Your task to perform on an android device: empty trash in google photos Image 0: 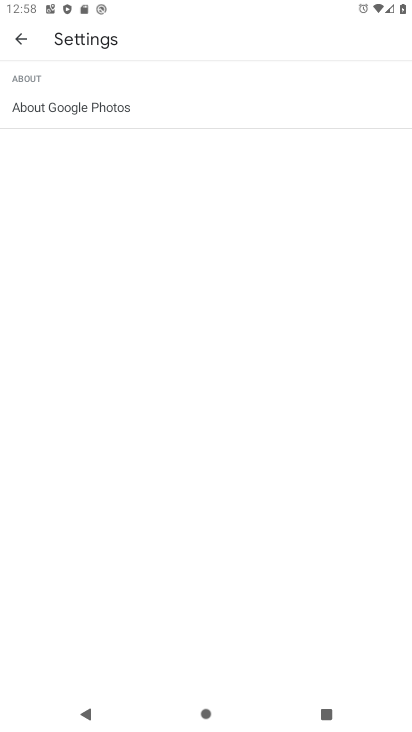
Step 0: press back button
Your task to perform on an android device: empty trash in google photos Image 1: 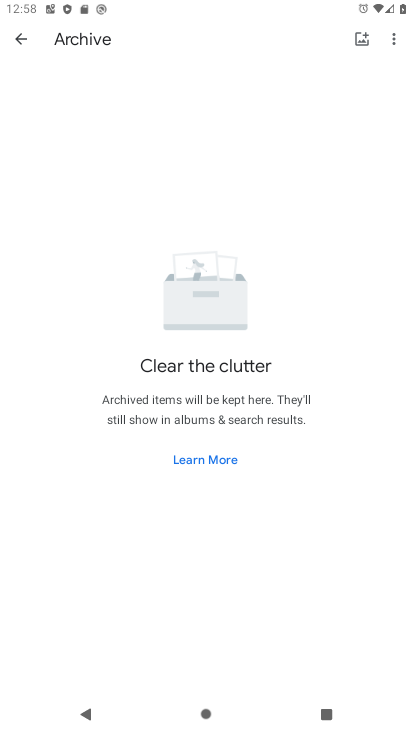
Step 1: press back button
Your task to perform on an android device: empty trash in google photos Image 2: 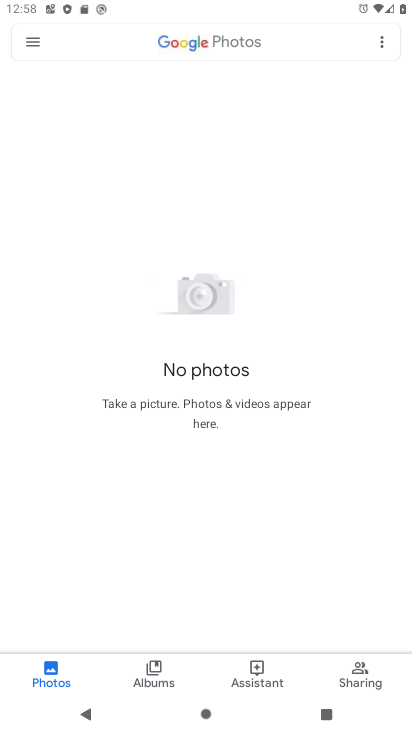
Step 2: press back button
Your task to perform on an android device: empty trash in google photos Image 3: 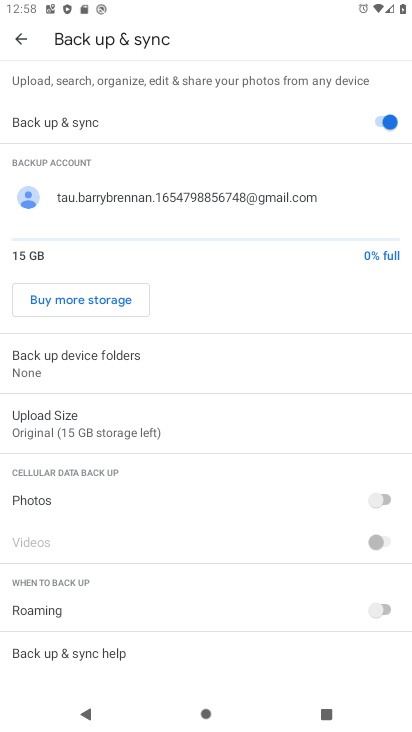
Step 3: press back button
Your task to perform on an android device: empty trash in google photos Image 4: 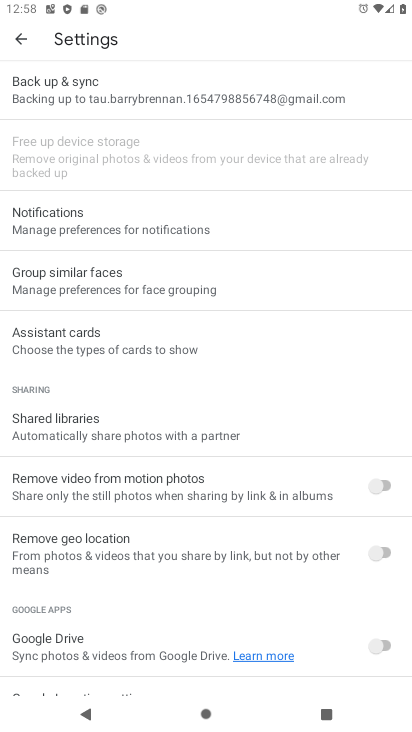
Step 4: press back button
Your task to perform on an android device: empty trash in google photos Image 5: 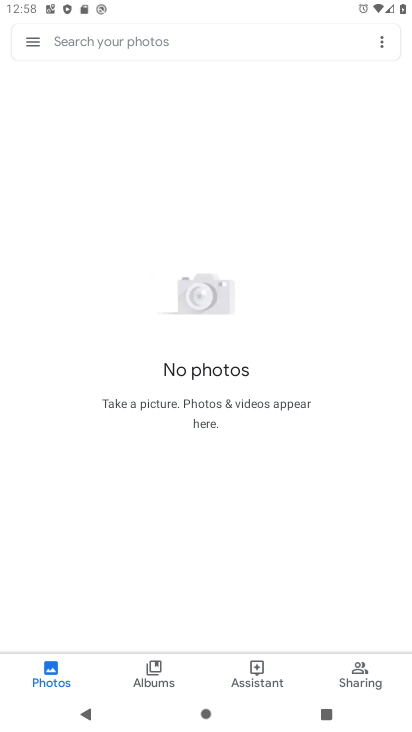
Step 5: press back button
Your task to perform on an android device: empty trash in google photos Image 6: 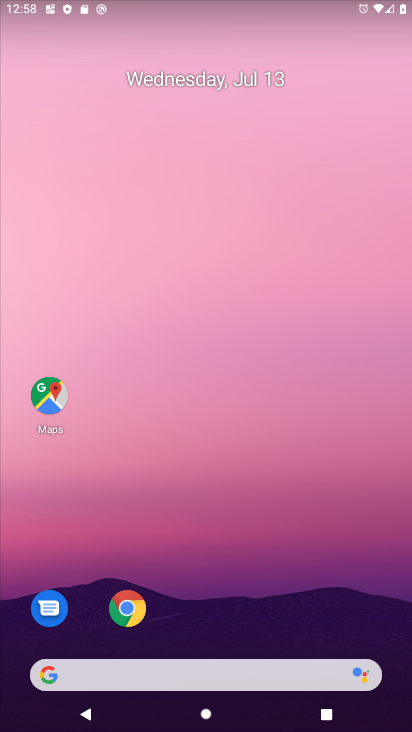
Step 6: drag from (226, 605) to (310, 62)
Your task to perform on an android device: empty trash in google photos Image 7: 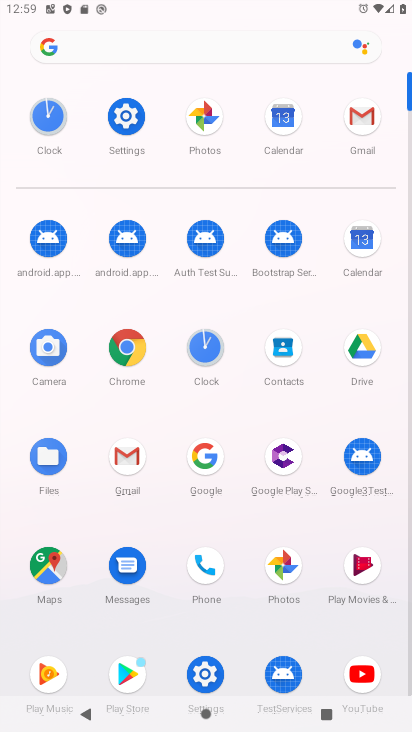
Step 7: click (278, 560)
Your task to perform on an android device: empty trash in google photos Image 8: 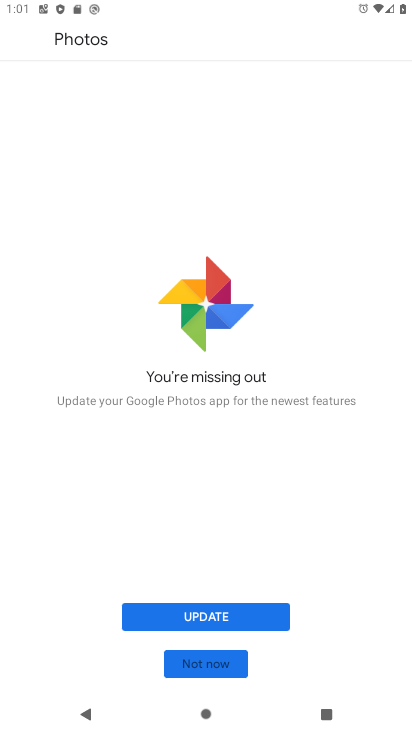
Step 8: press back button
Your task to perform on an android device: empty trash in google photos Image 9: 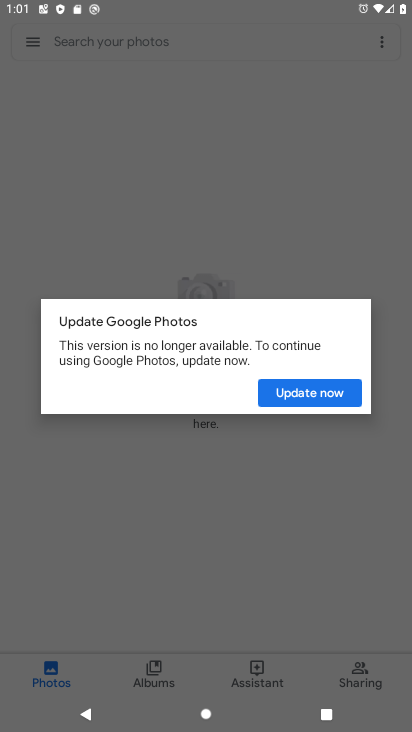
Step 9: click (324, 392)
Your task to perform on an android device: empty trash in google photos Image 10: 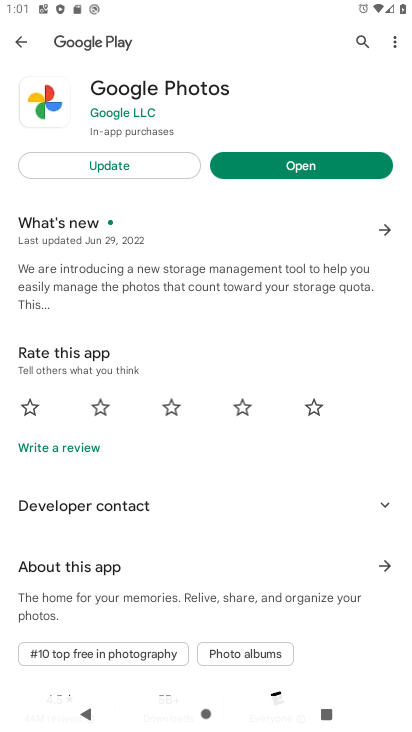
Step 10: click (321, 170)
Your task to perform on an android device: empty trash in google photos Image 11: 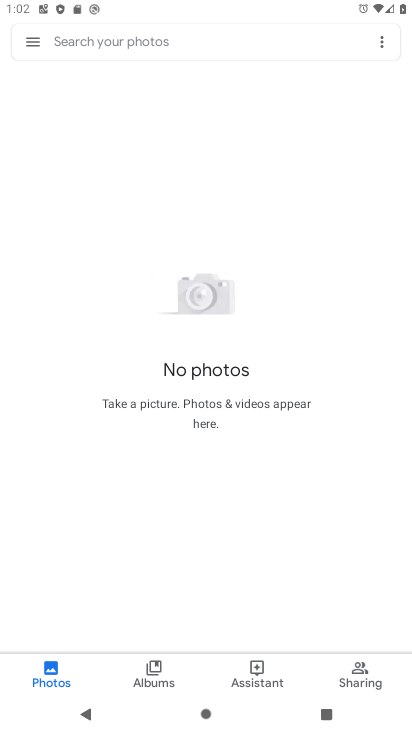
Step 11: click (30, 27)
Your task to perform on an android device: empty trash in google photos Image 12: 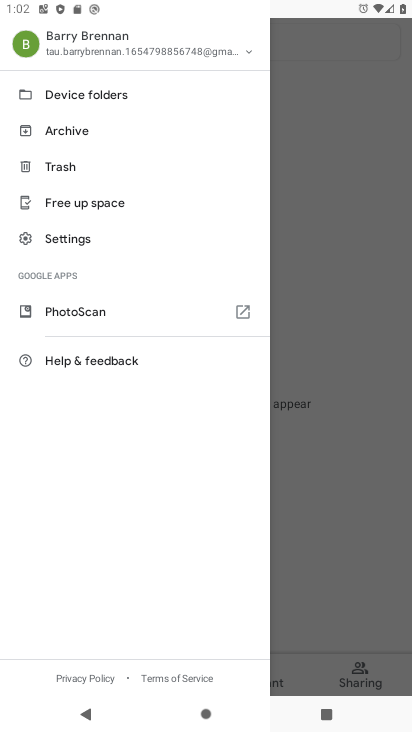
Step 12: click (81, 165)
Your task to perform on an android device: empty trash in google photos Image 13: 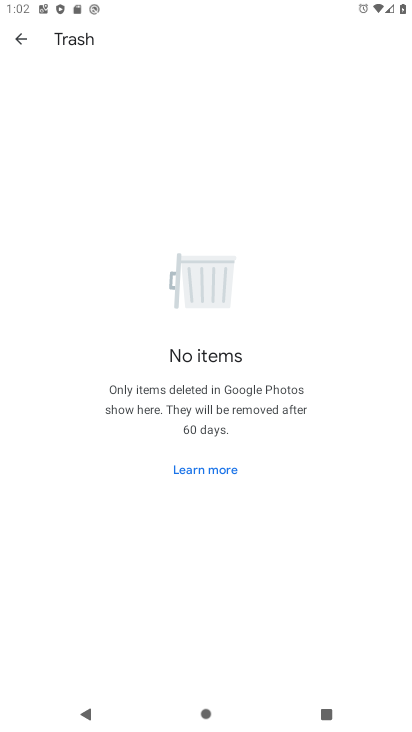
Step 13: task complete